Your task to perform on an android device: empty trash in the gmail app Image 0: 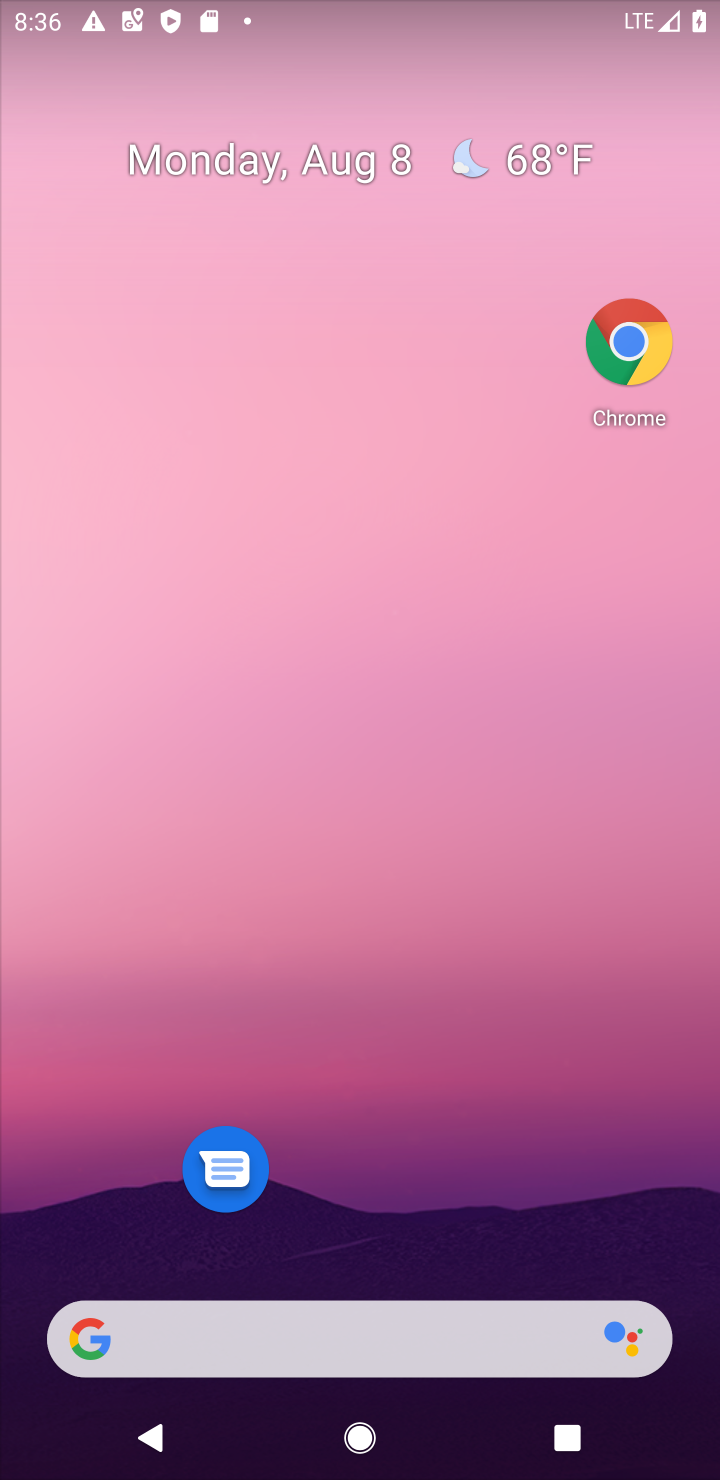
Step 0: drag from (375, 1035) to (531, 170)
Your task to perform on an android device: empty trash in the gmail app Image 1: 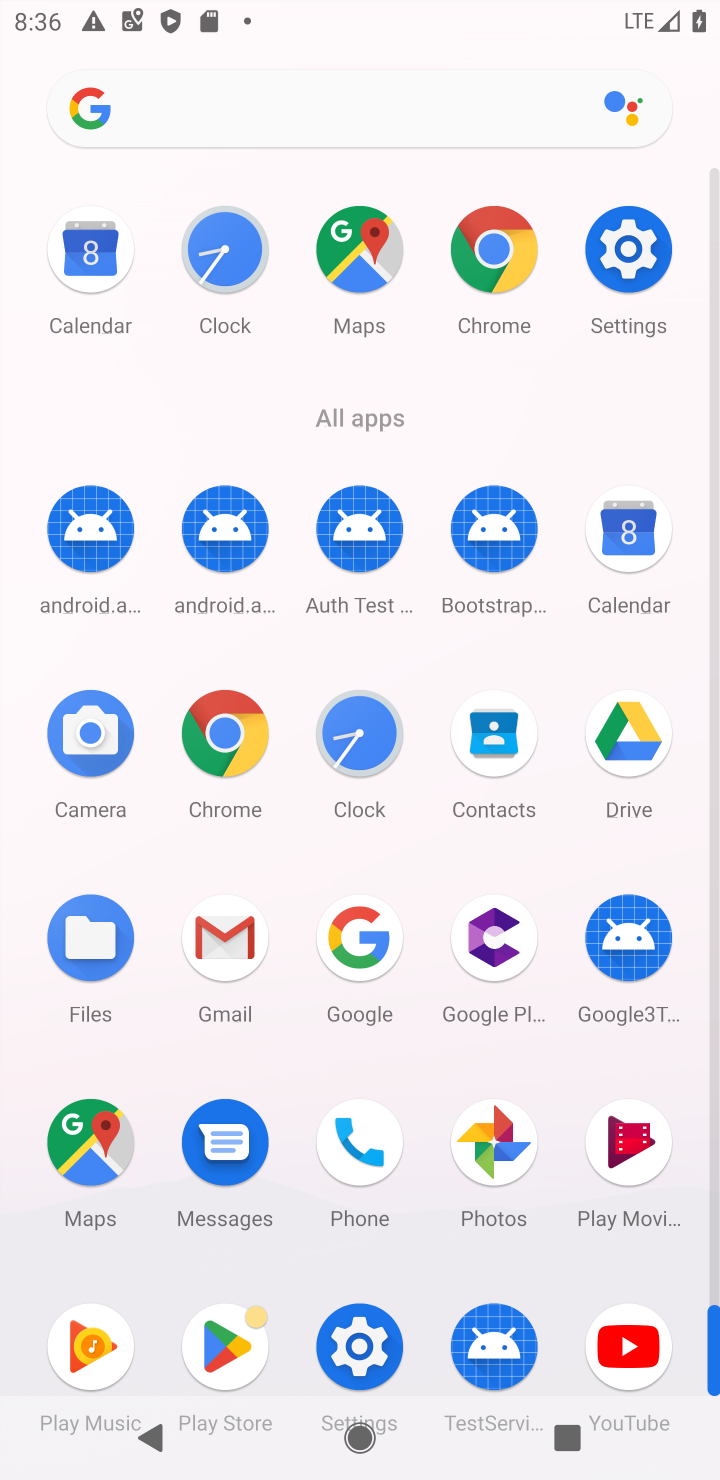
Step 1: click (219, 952)
Your task to perform on an android device: empty trash in the gmail app Image 2: 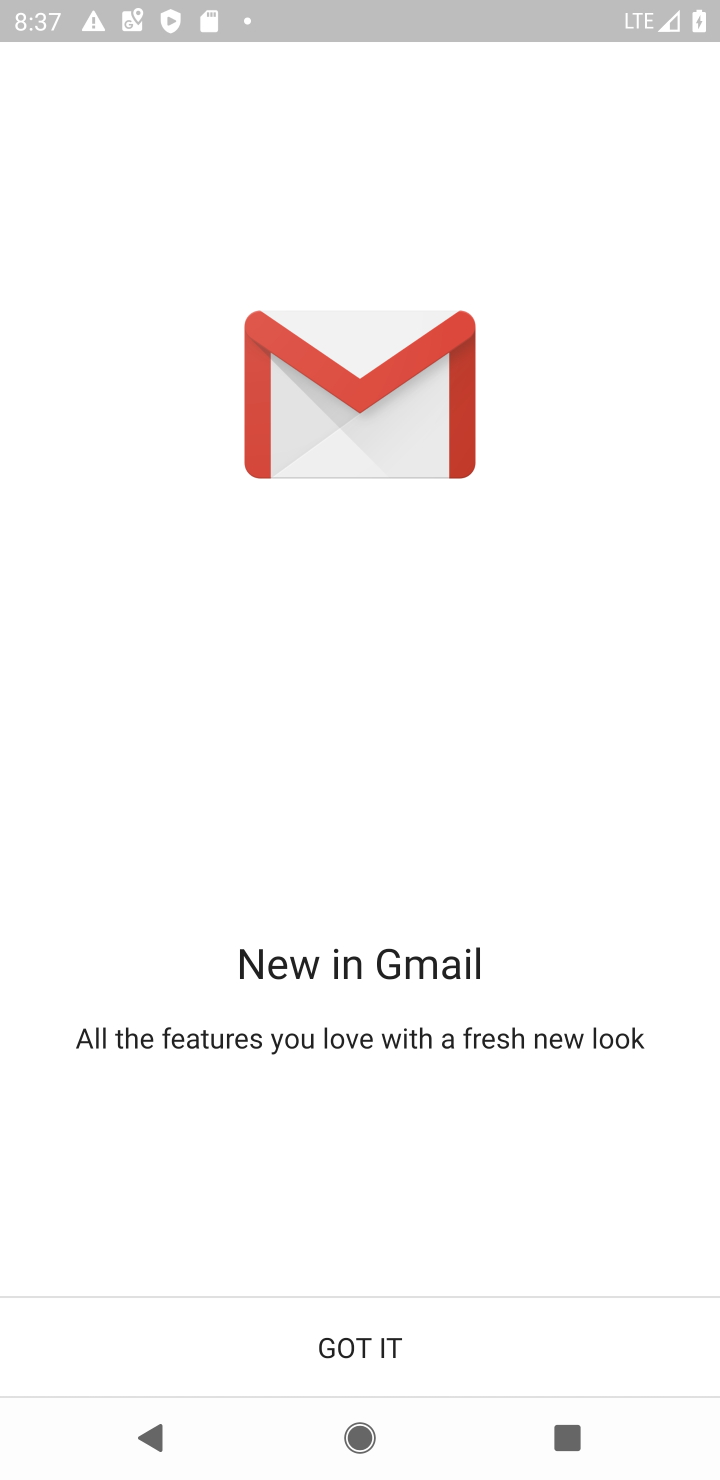
Step 2: click (320, 1339)
Your task to perform on an android device: empty trash in the gmail app Image 3: 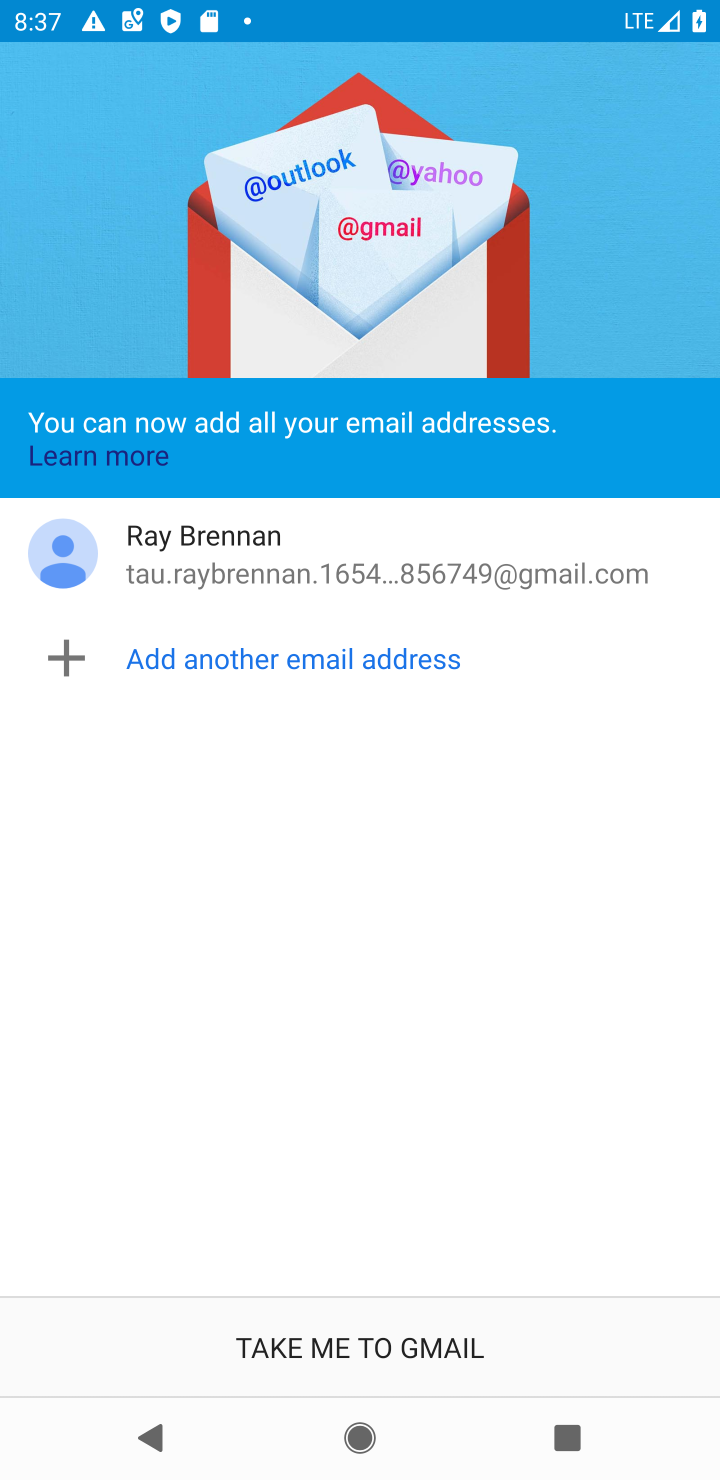
Step 3: click (320, 1351)
Your task to perform on an android device: empty trash in the gmail app Image 4: 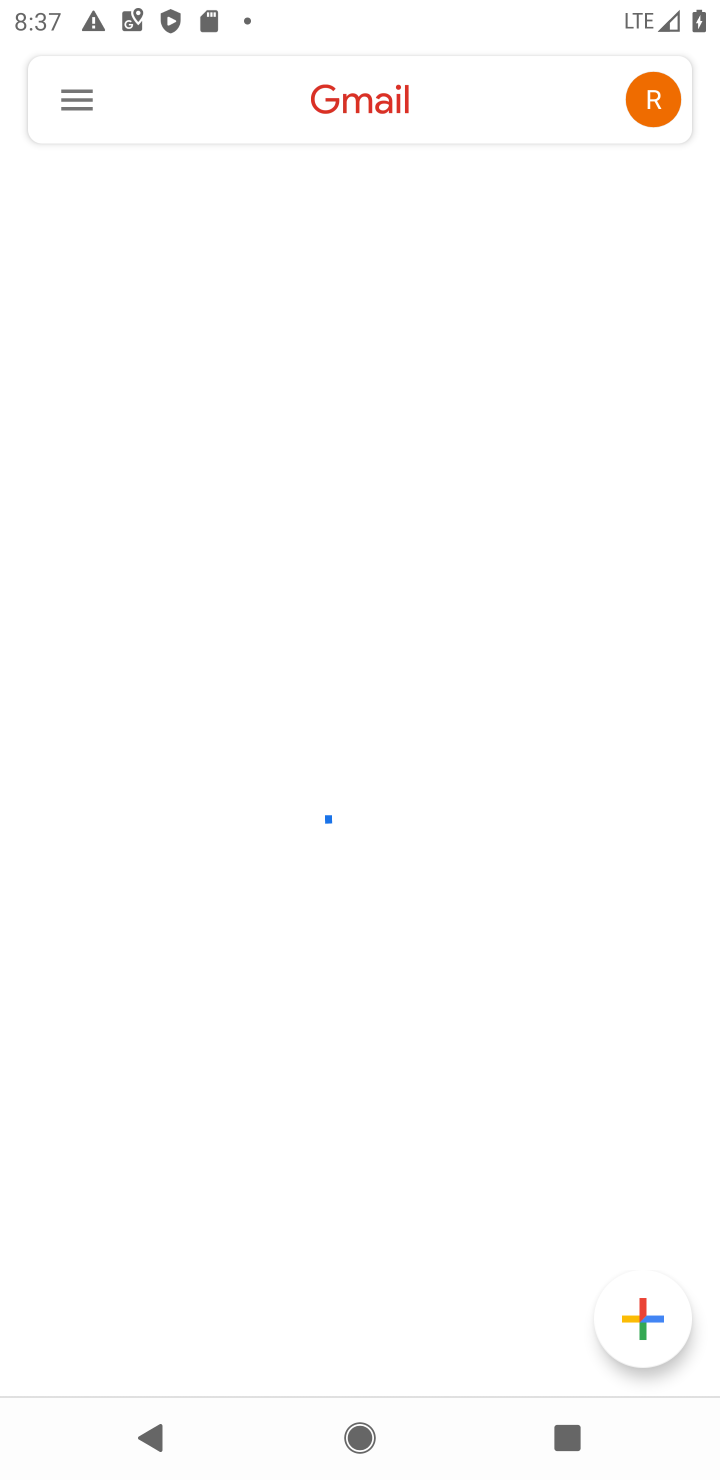
Step 4: click (70, 93)
Your task to perform on an android device: empty trash in the gmail app Image 5: 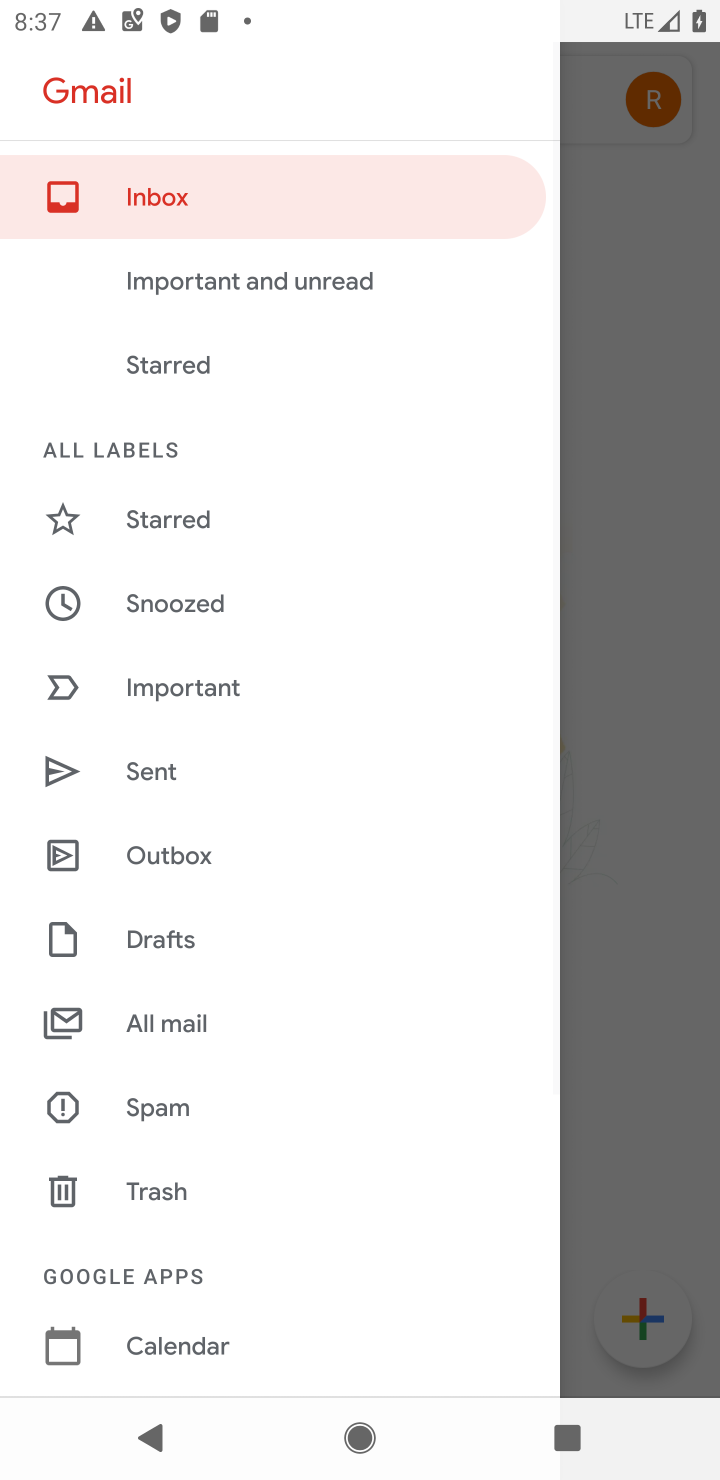
Step 5: click (135, 1206)
Your task to perform on an android device: empty trash in the gmail app Image 6: 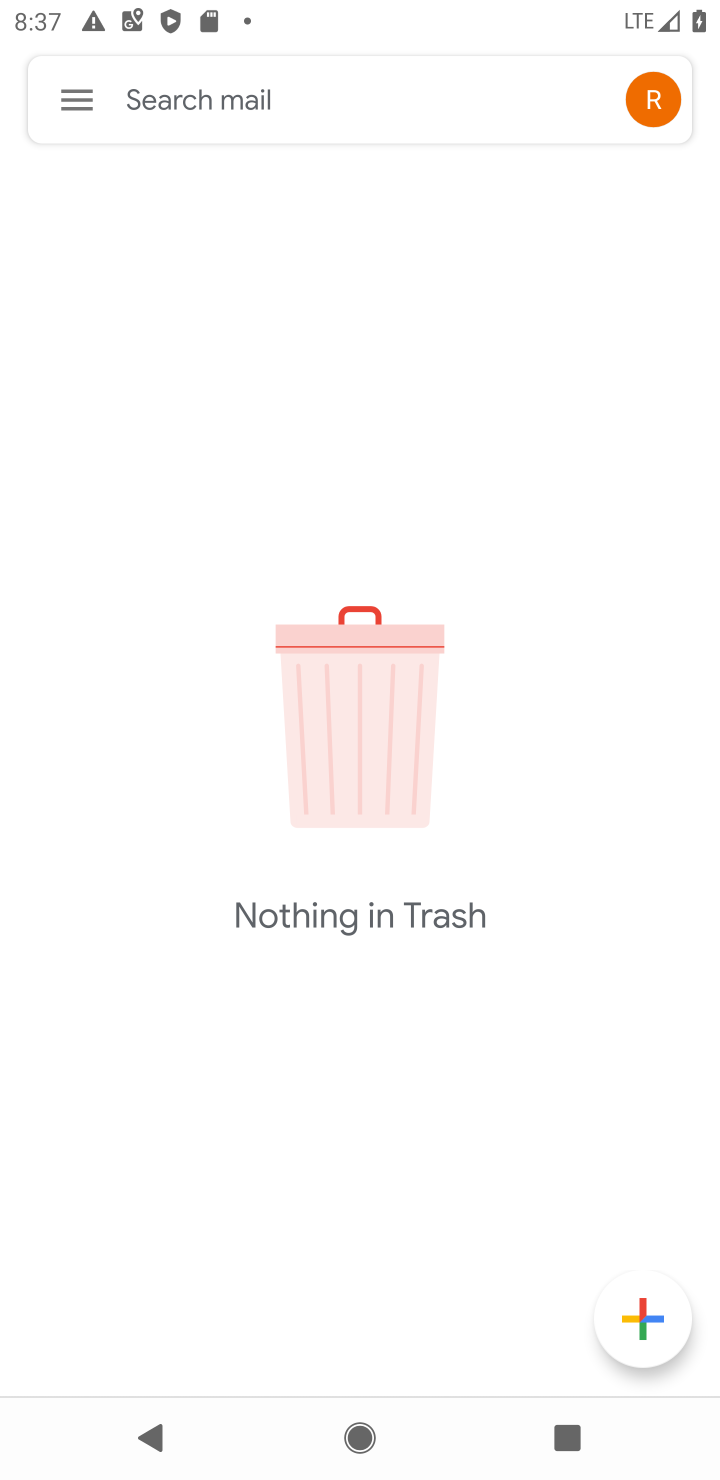
Step 6: task complete